Your task to perform on an android device: Go to Amazon Image 0: 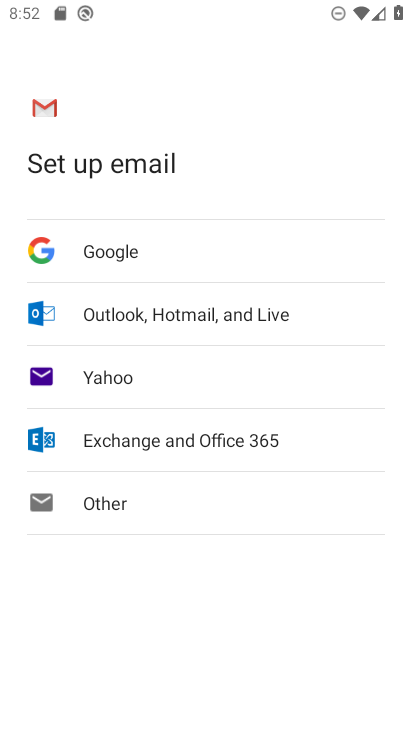
Step 0: press home button
Your task to perform on an android device: Go to Amazon Image 1: 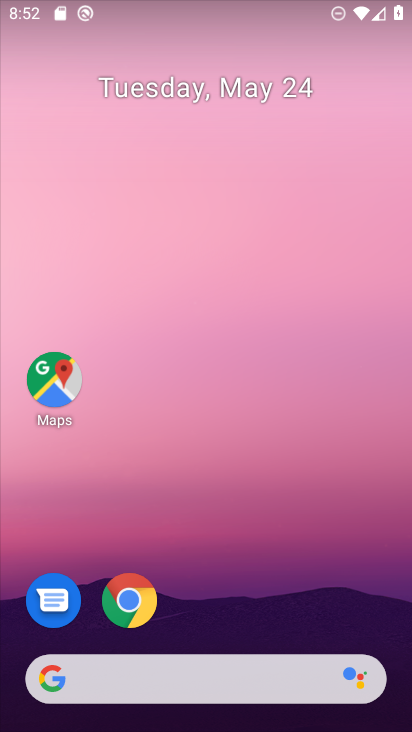
Step 1: click (135, 600)
Your task to perform on an android device: Go to Amazon Image 2: 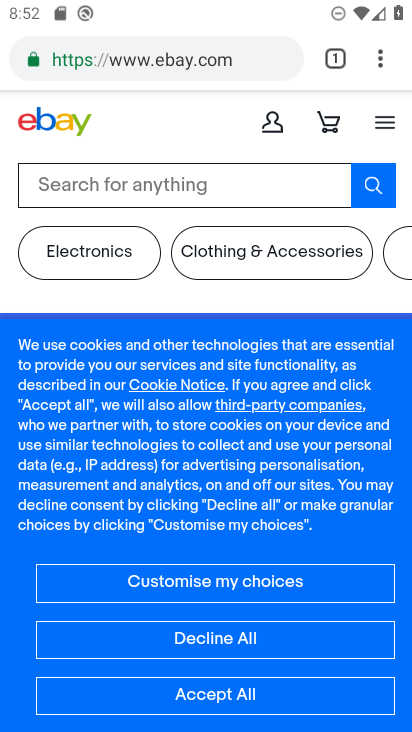
Step 2: click (329, 66)
Your task to perform on an android device: Go to Amazon Image 3: 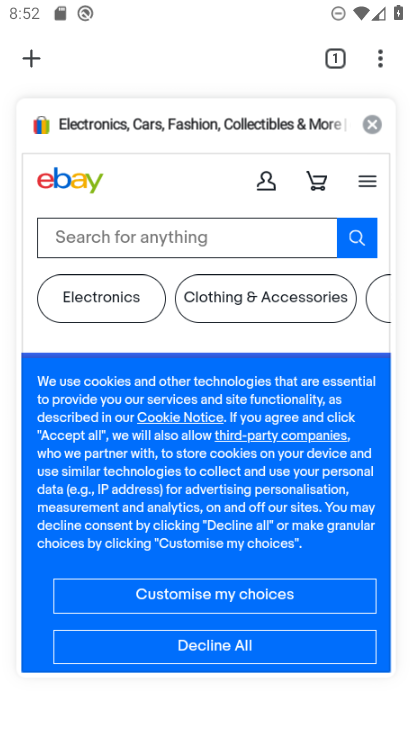
Step 3: click (33, 67)
Your task to perform on an android device: Go to Amazon Image 4: 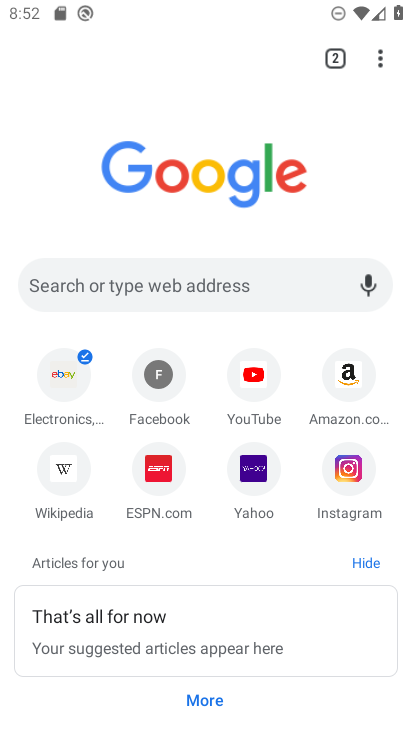
Step 4: click (357, 388)
Your task to perform on an android device: Go to Amazon Image 5: 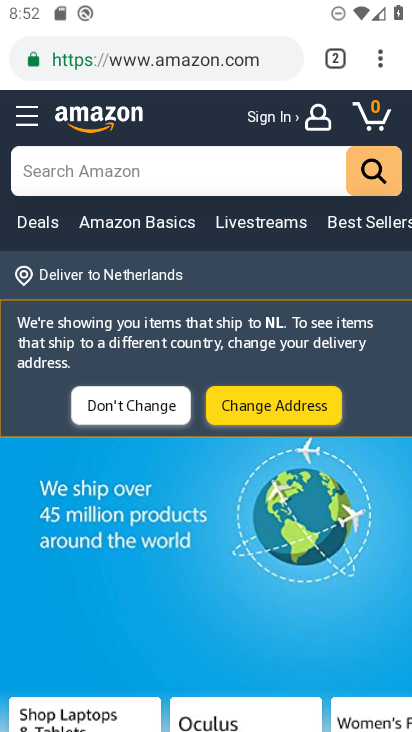
Step 5: task complete